Your task to perform on an android device: Go to internet settings Image 0: 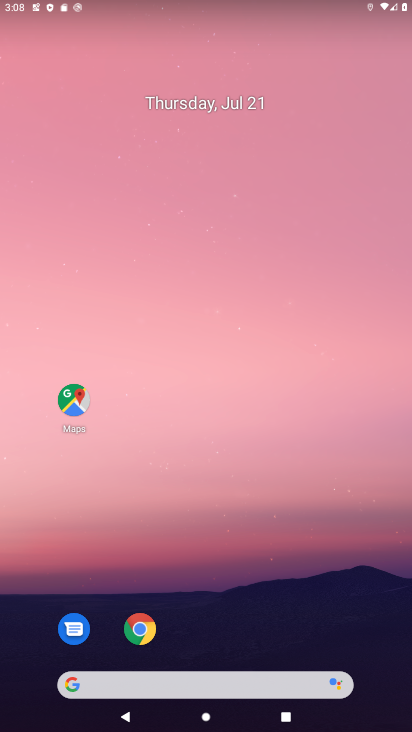
Step 0: drag from (258, 572) to (242, 68)
Your task to perform on an android device: Go to internet settings Image 1: 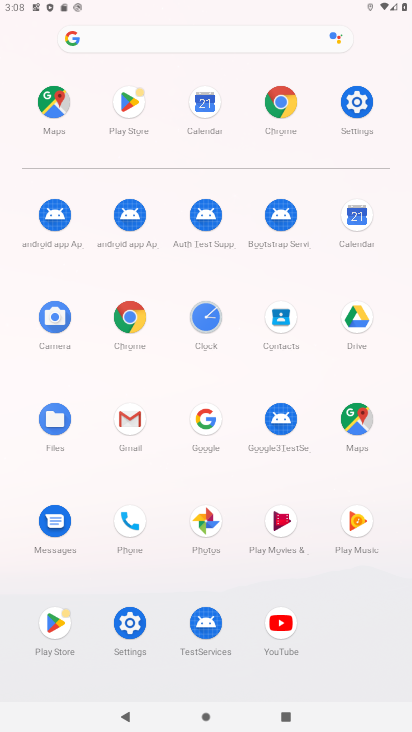
Step 1: click (137, 626)
Your task to perform on an android device: Go to internet settings Image 2: 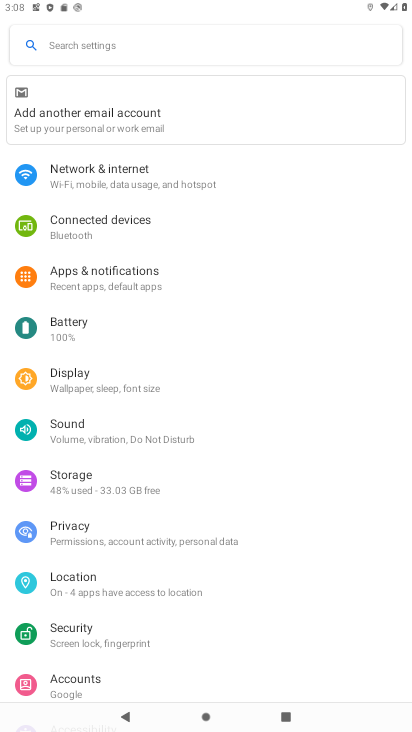
Step 2: click (132, 165)
Your task to perform on an android device: Go to internet settings Image 3: 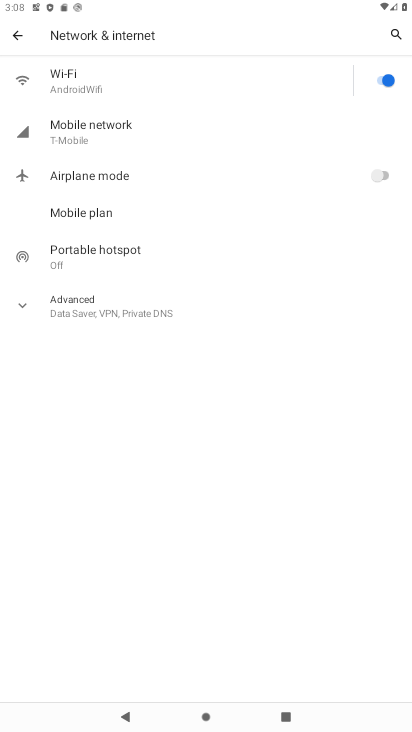
Step 3: task complete